Your task to perform on an android device: change text size in settings app Image 0: 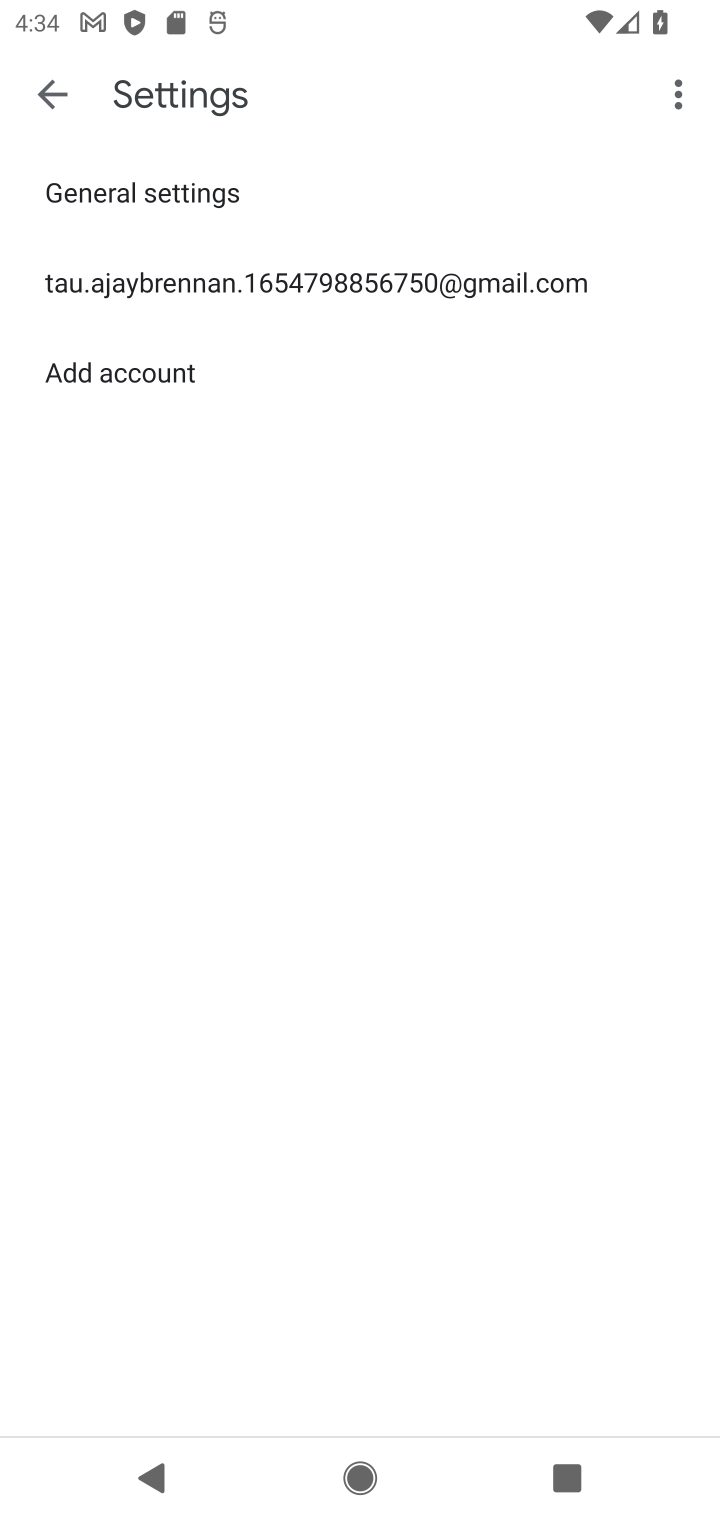
Step 0: press home button
Your task to perform on an android device: change text size in settings app Image 1: 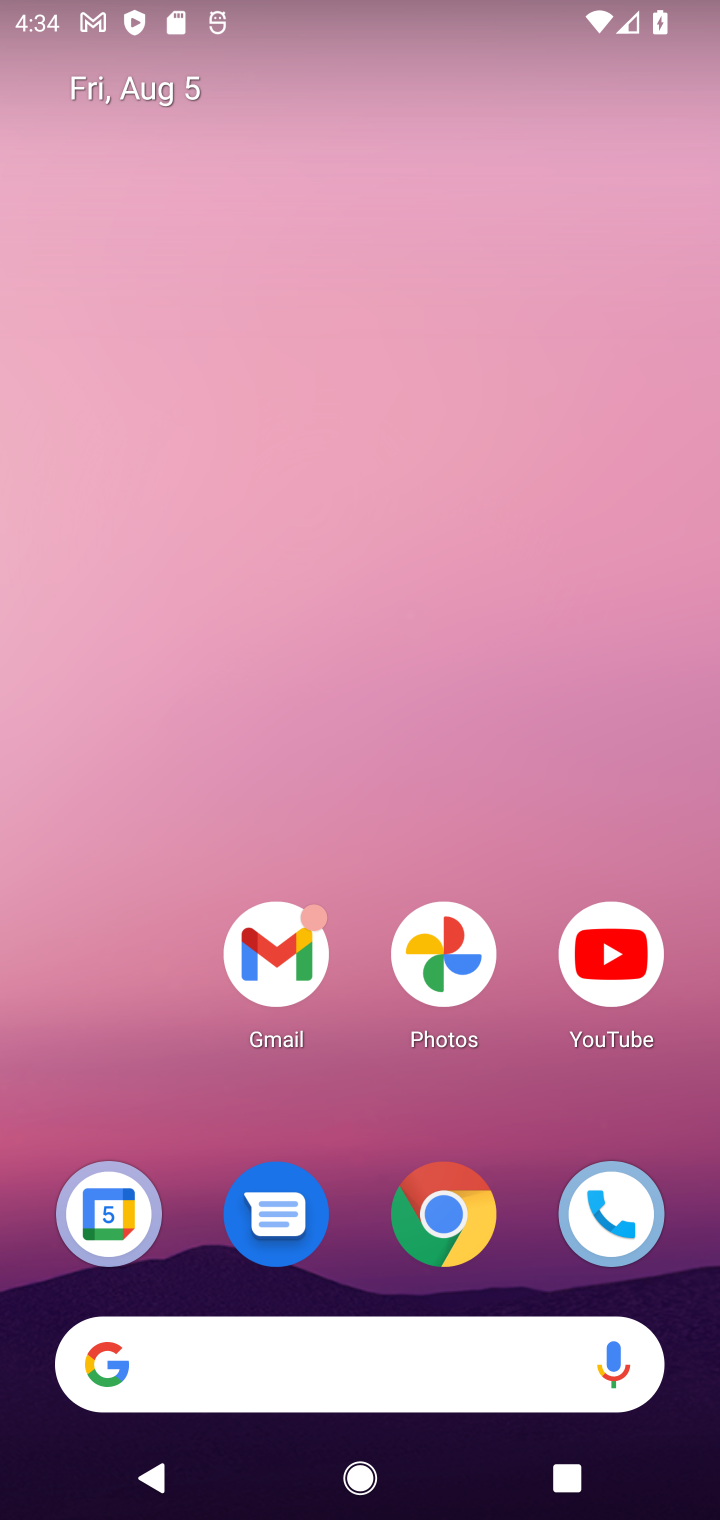
Step 1: drag from (174, 1056) to (310, 0)
Your task to perform on an android device: change text size in settings app Image 2: 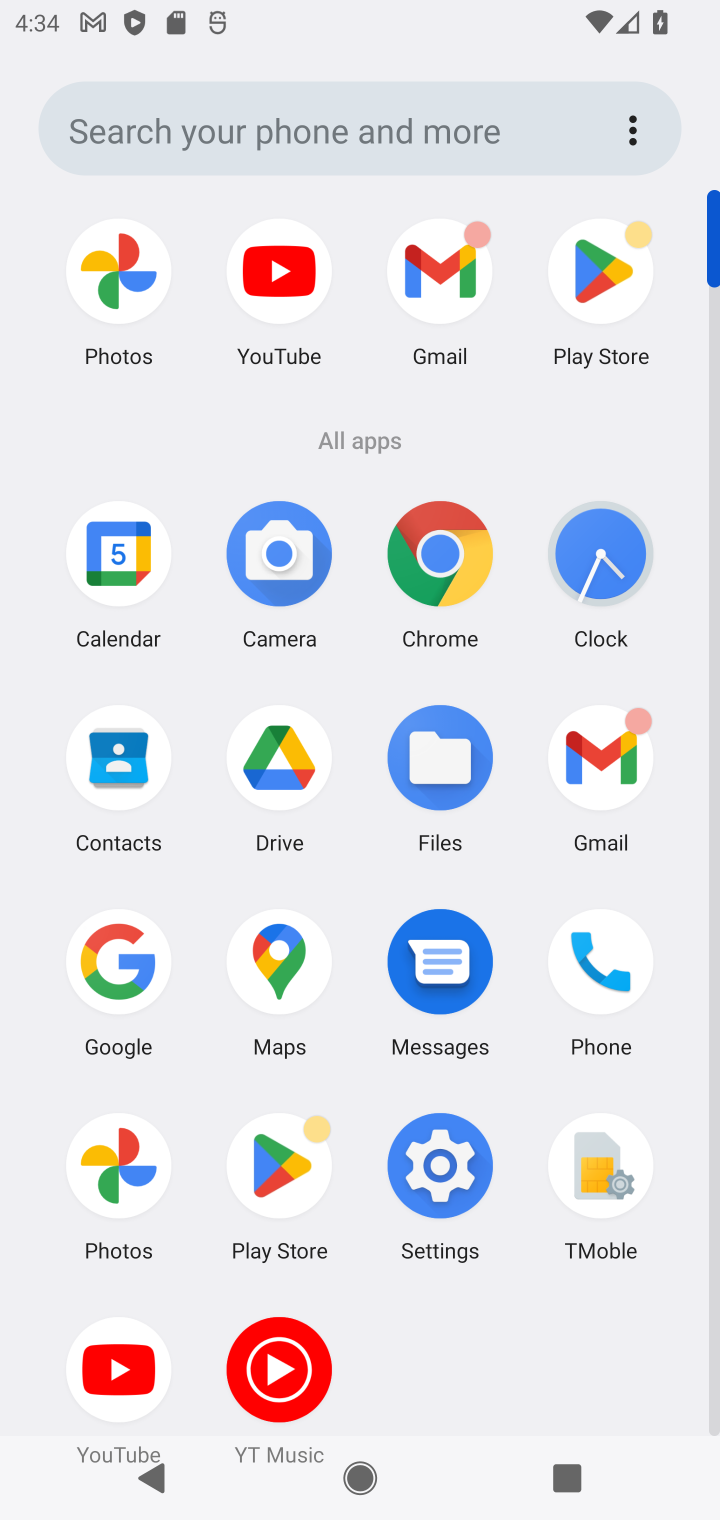
Step 2: click (443, 1172)
Your task to perform on an android device: change text size in settings app Image 3: 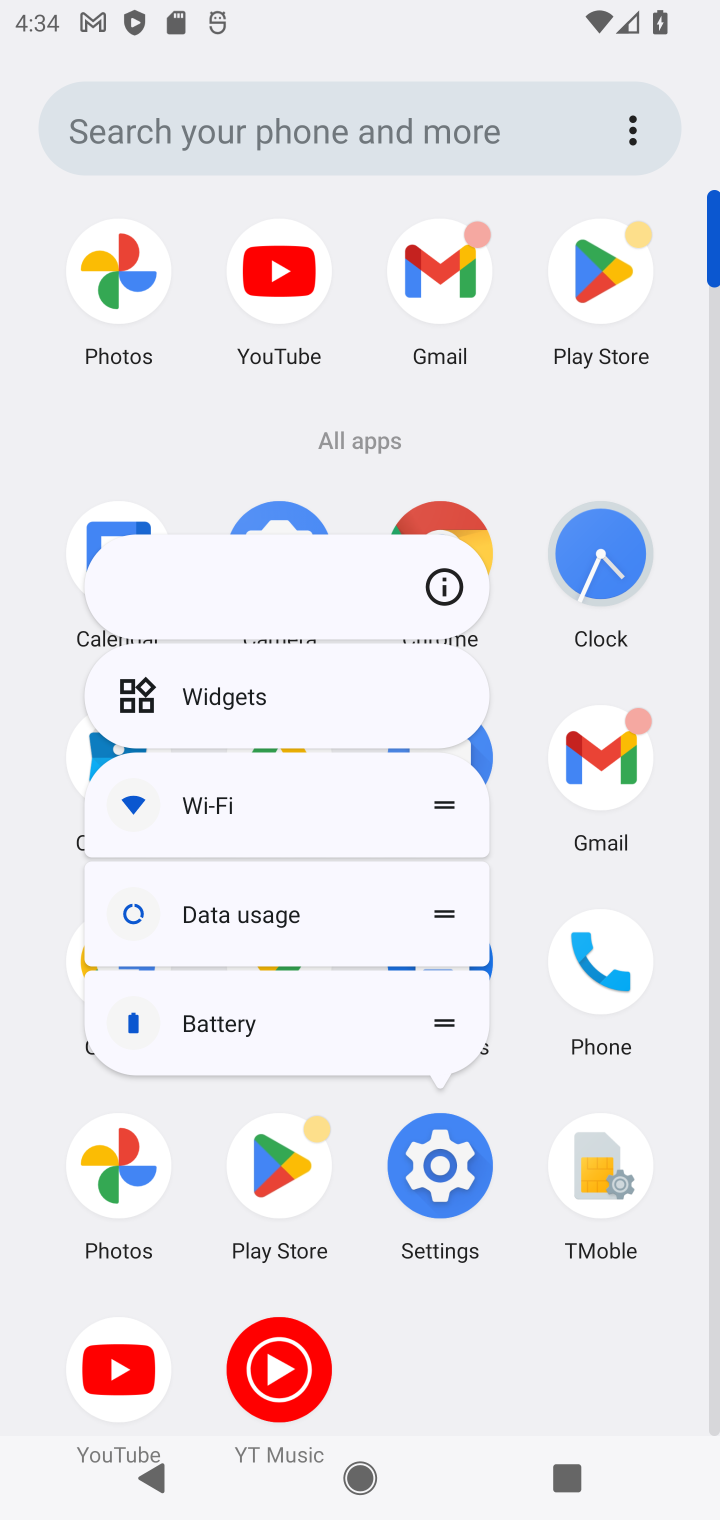
Step 3: click (443, 1172)
Your task to perform on an android device: change text size in settings app Image 4: 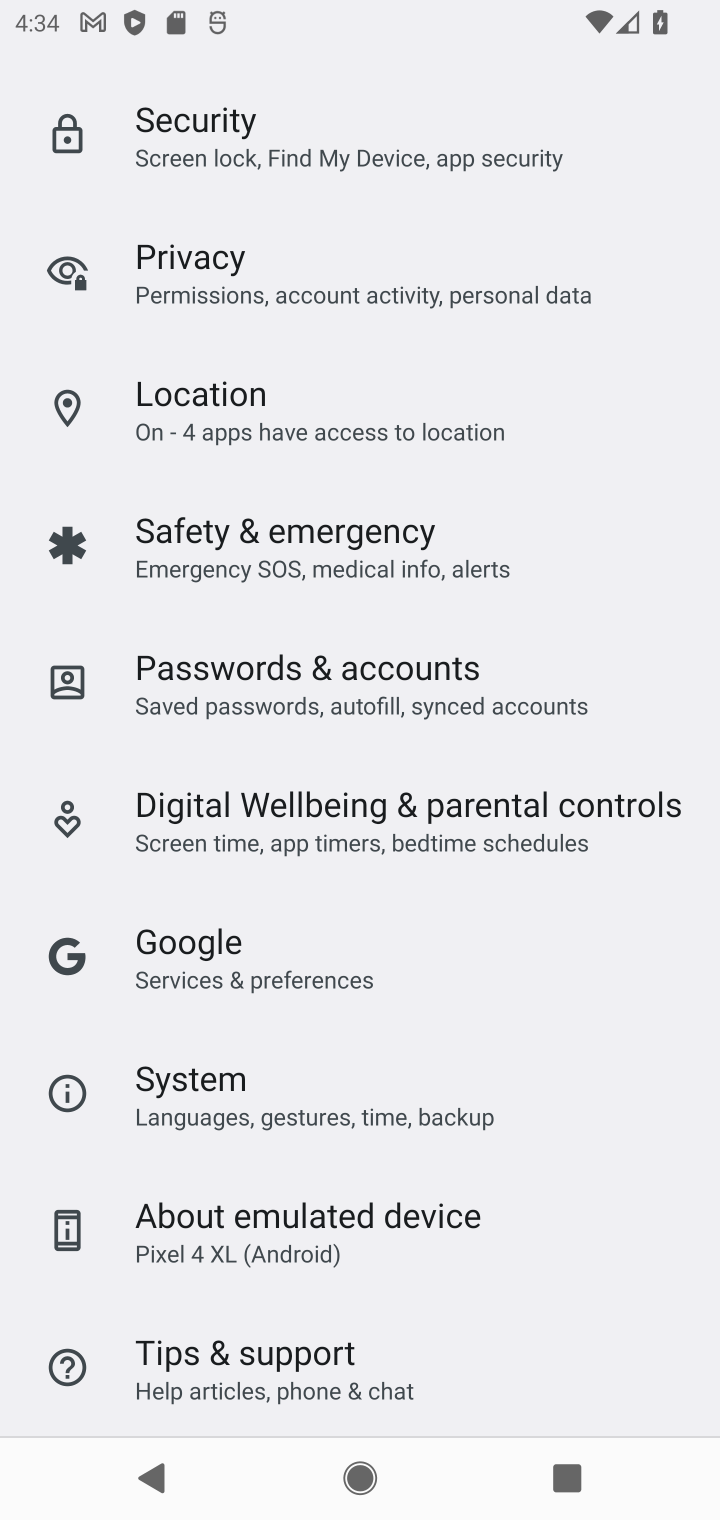
Step 4: drag from (394, 292) to (422, 1371)
Your task to perform on an android device: change text size in settings app Image 5: 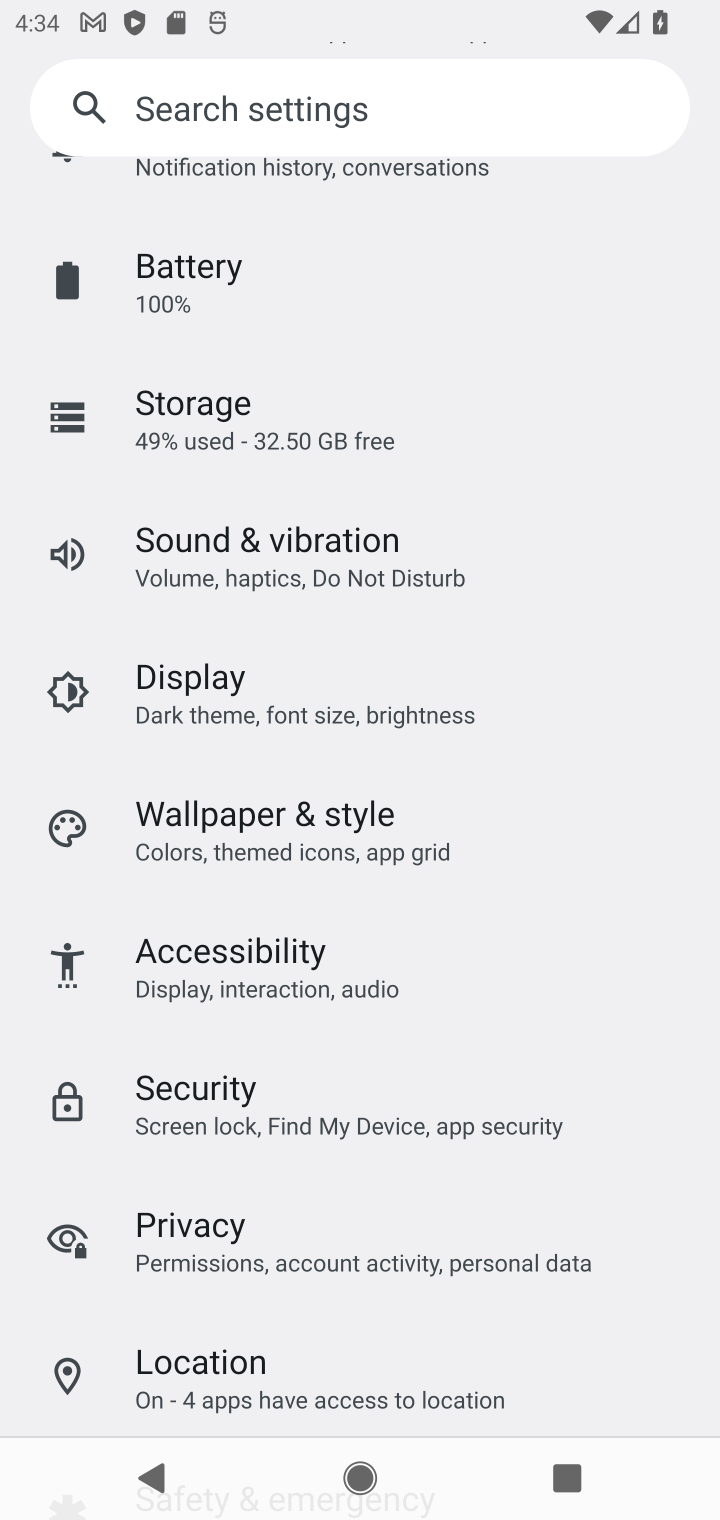
Step 5: drag from (352, 397) to (449, 1116)
Your task to perform on an android device: change text size in settings app Image 6: 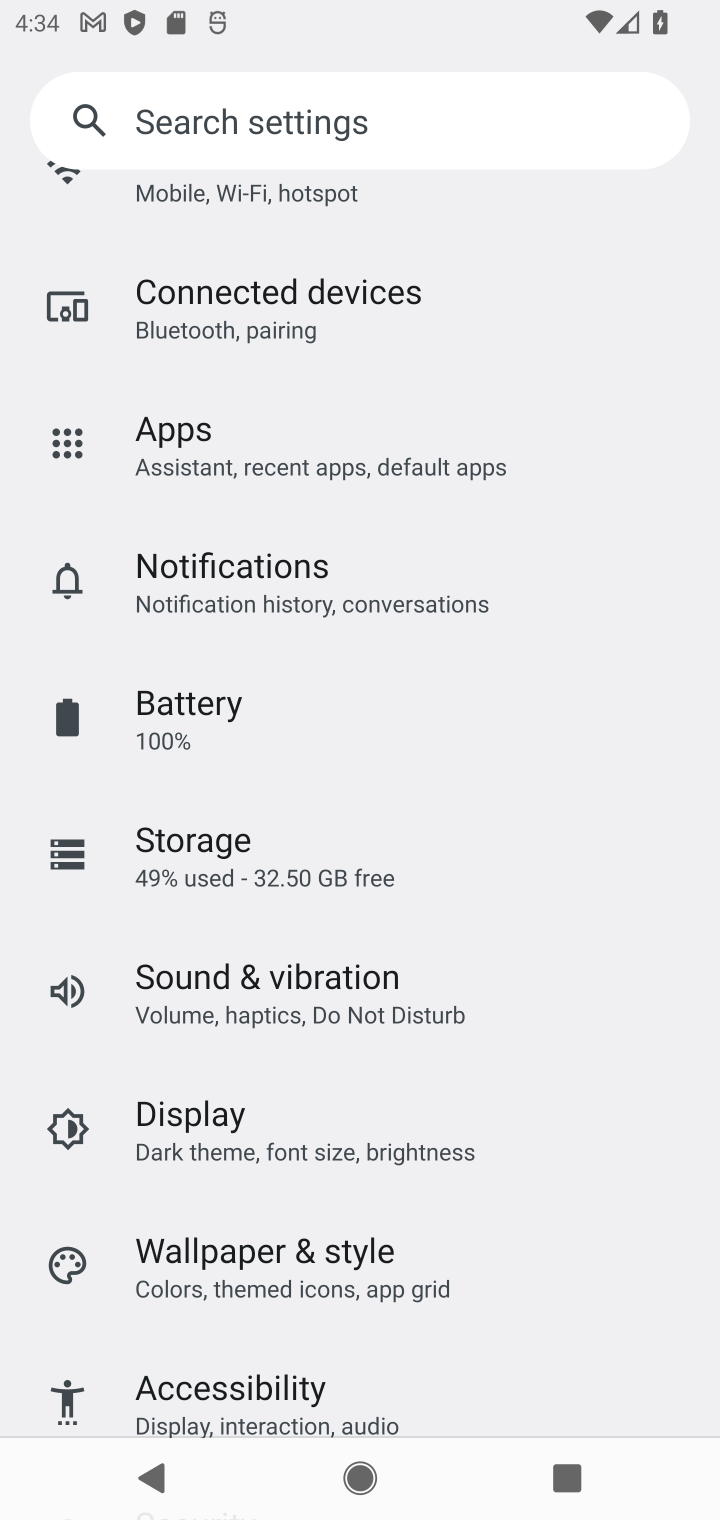
Step 6: drag from (343, 498) to (348, 1096)
Your task to perform on an android device: change text size in settings app Image 7: 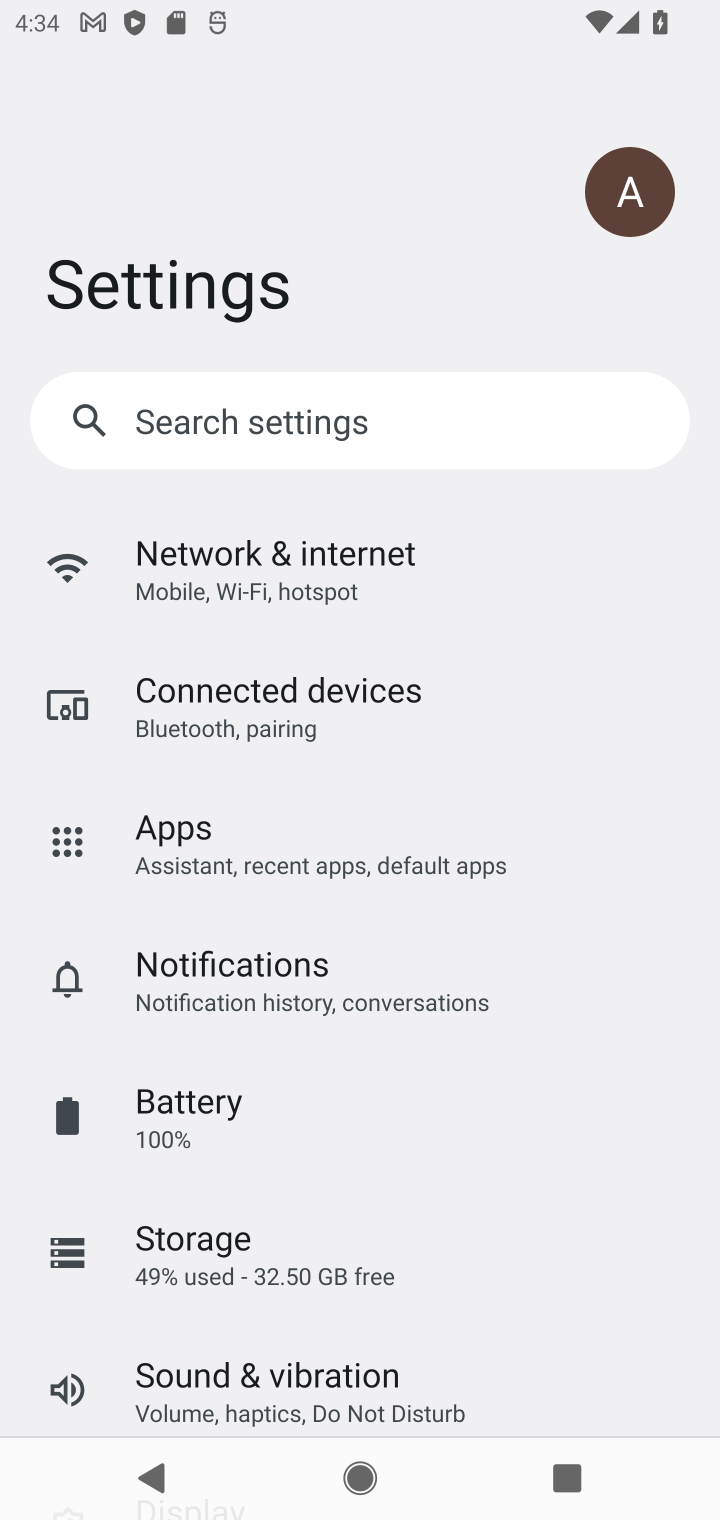
Step 7: drag from (320, 1071) to (347, 513)
Your task to perform on an android device: change text size in settings app Image 8: 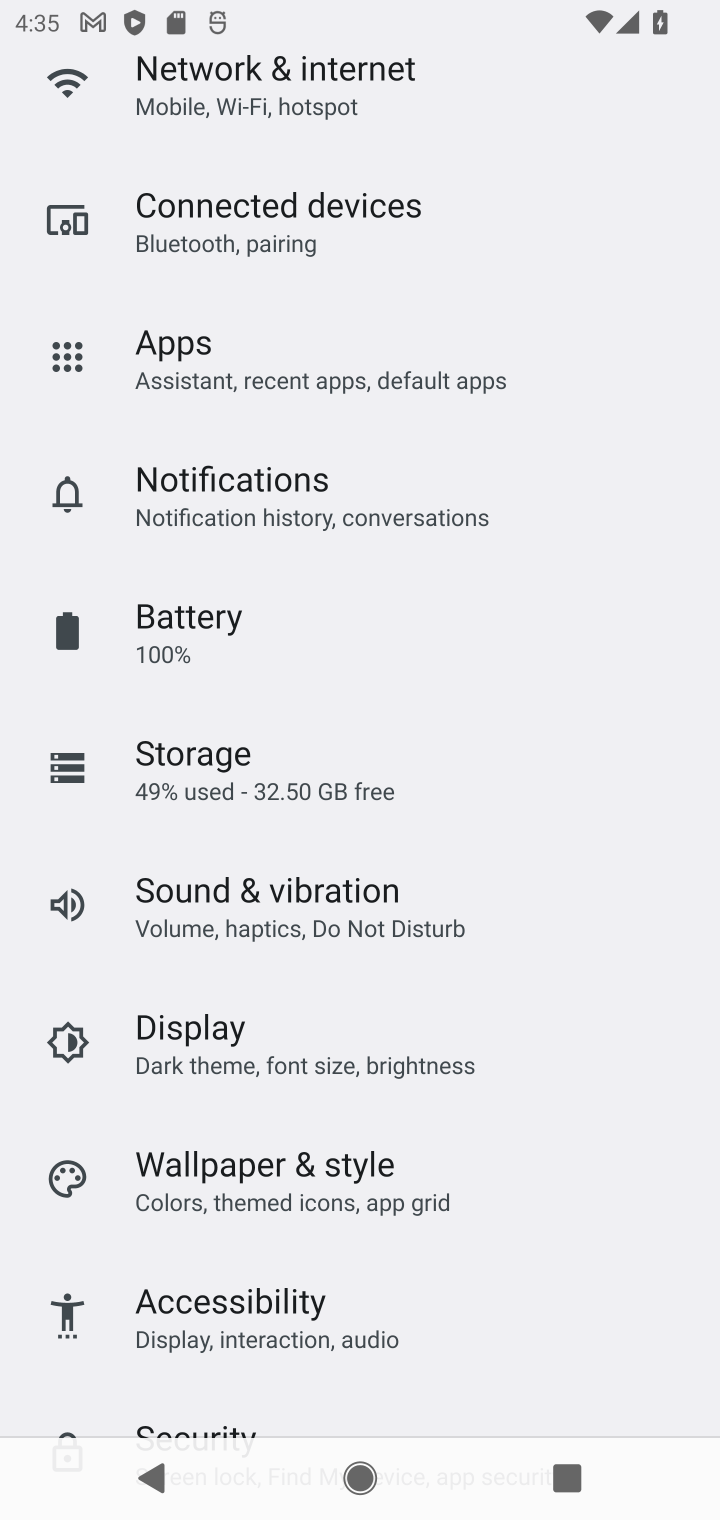
Step 8: click (263, 1050)
Your task to perform on an android device: change text size in settings app Image 9: 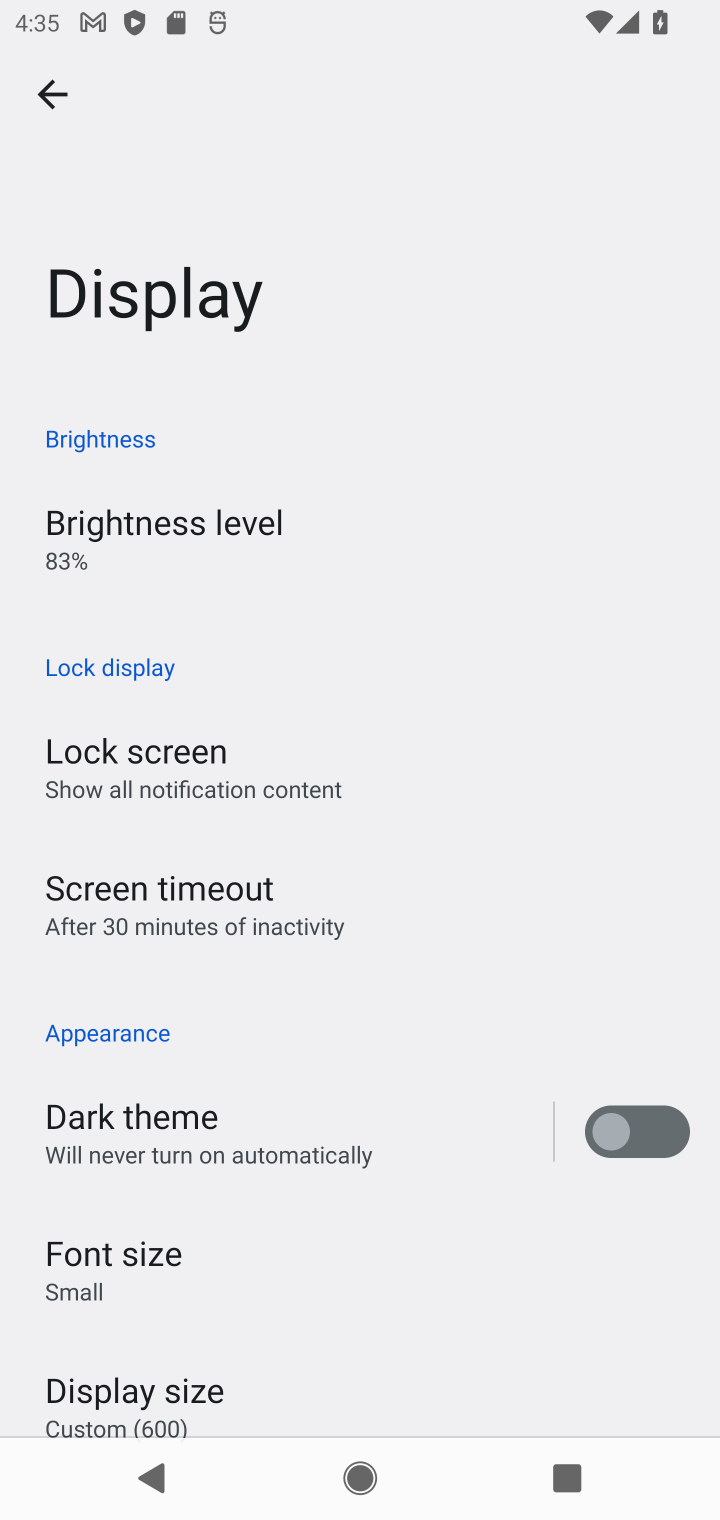
Step 9: drag from (377, 970) to (431, 311)
Your task to perform on an android device: change text size in settings app Image 10: 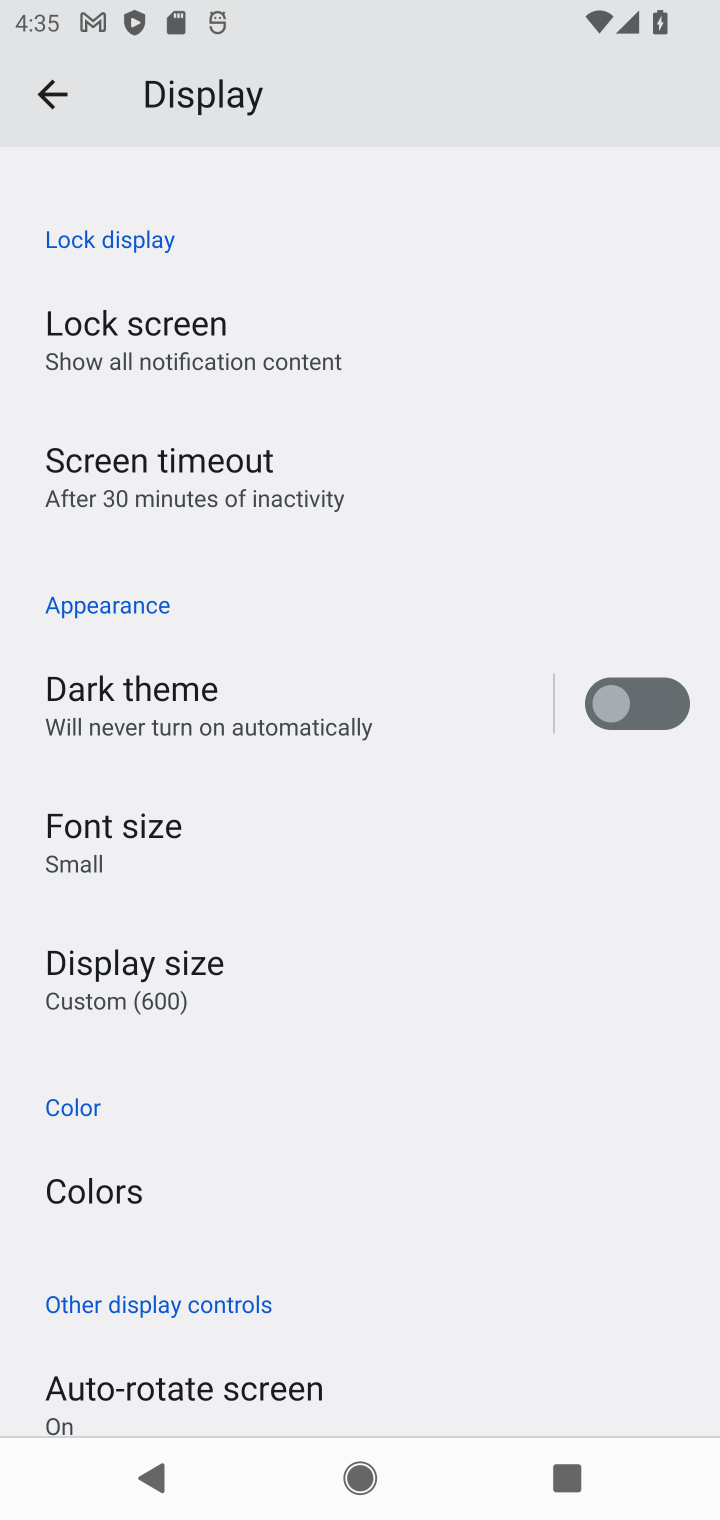
Step 10: click (138, 837)
Your task to perform on an android device: change text size in settings app Image 11: 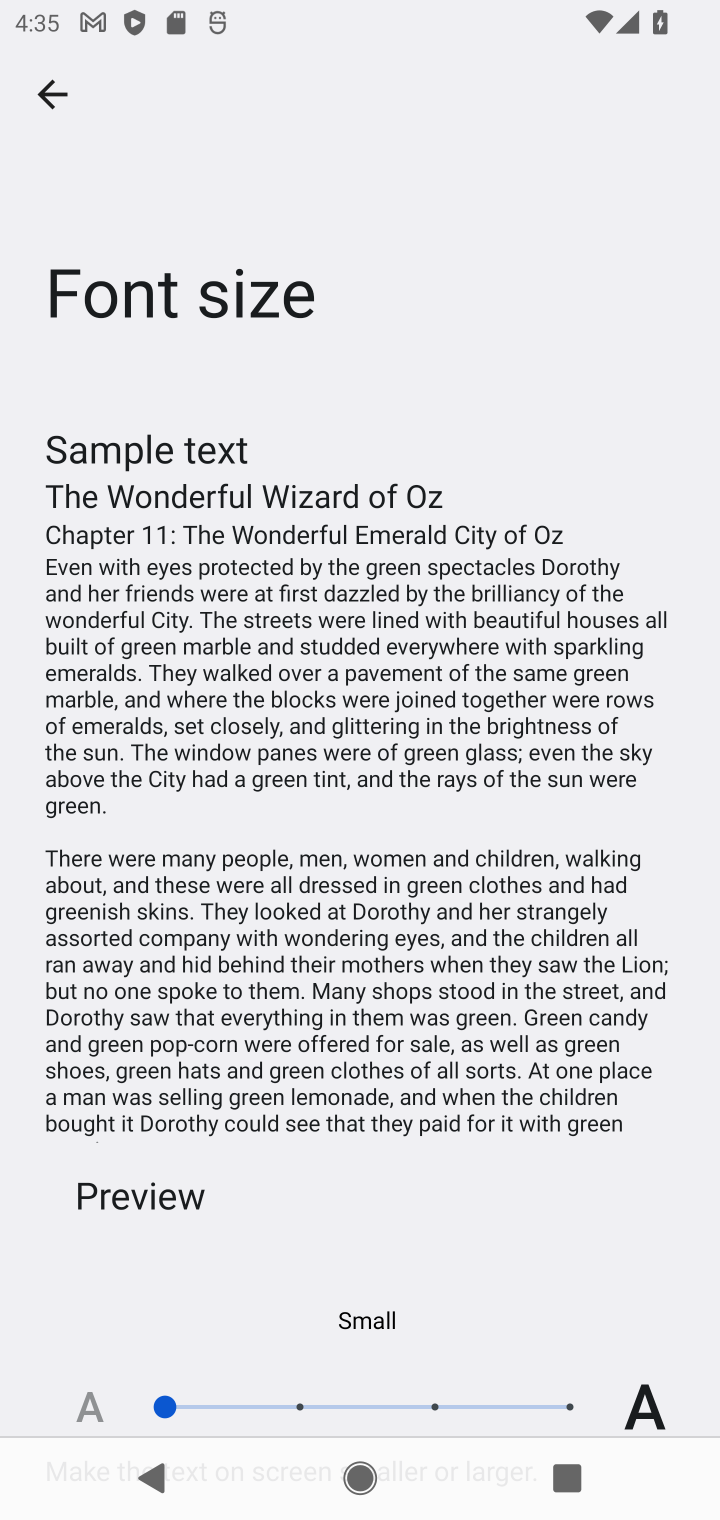
Step 11: click (304, 1375)
Your task to perform on an android device: change text size in settings app Image 12: 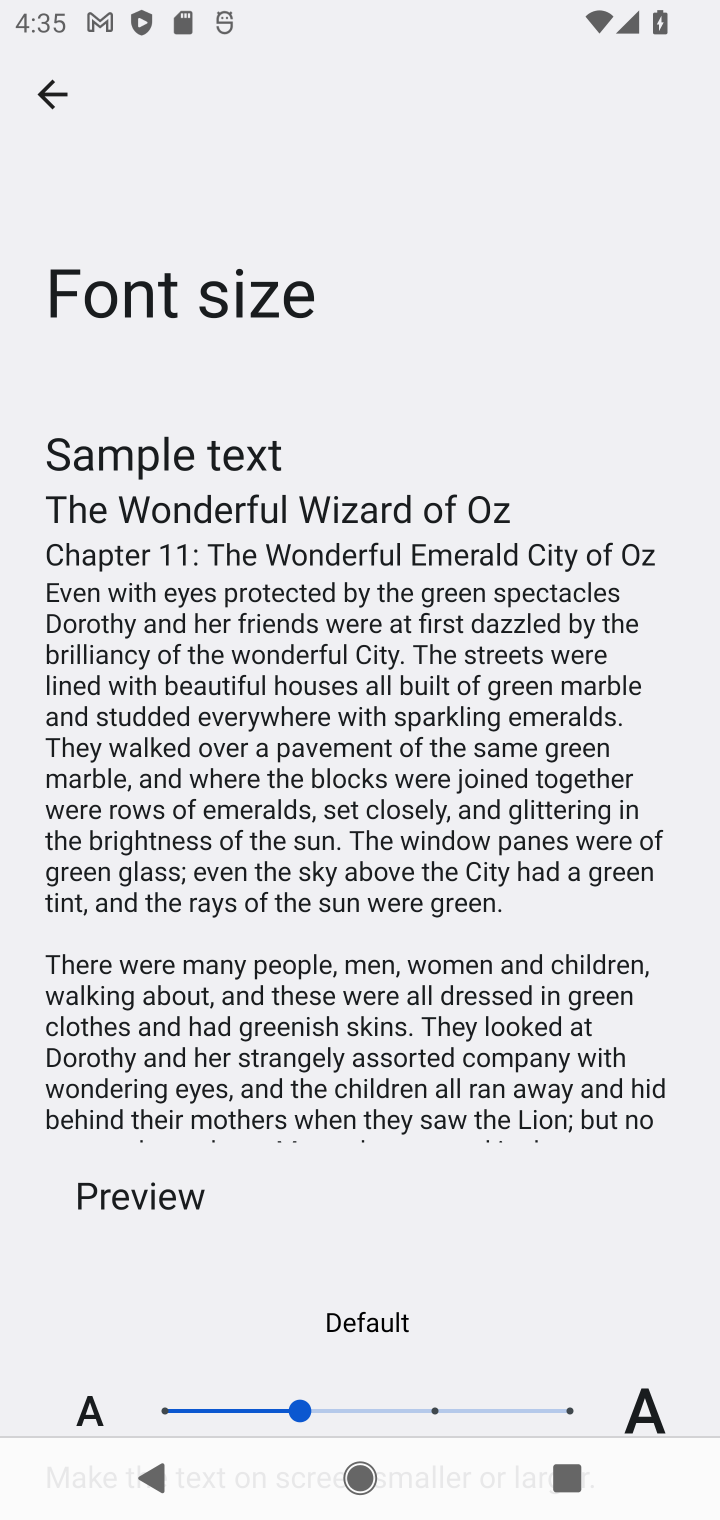
Step 12: task complete